Your task to perform on an android device: Open Google Chrome and open the bookmarks view Image 0: 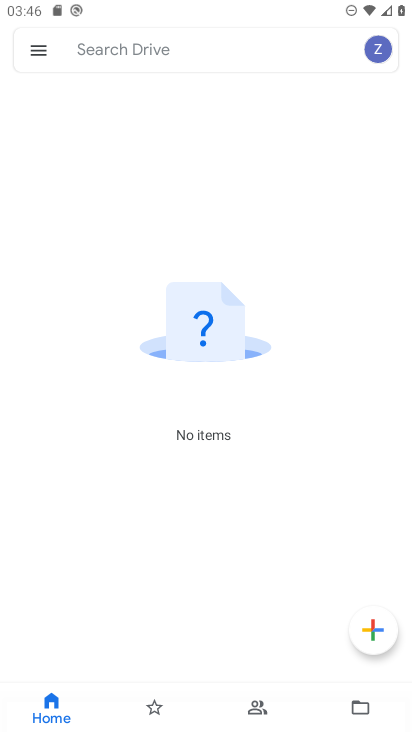
Step 0: press home button
Your task to perform on an android device: Open Google Chrome and open the bookmarks view Image 1: 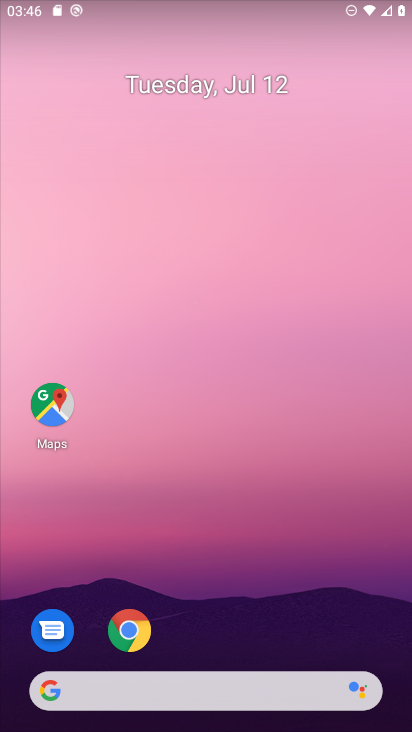
Step 1: click (128, 631)
Your task to perform on an android device: Open Google Chrome and open the bookmarks view Image 2: 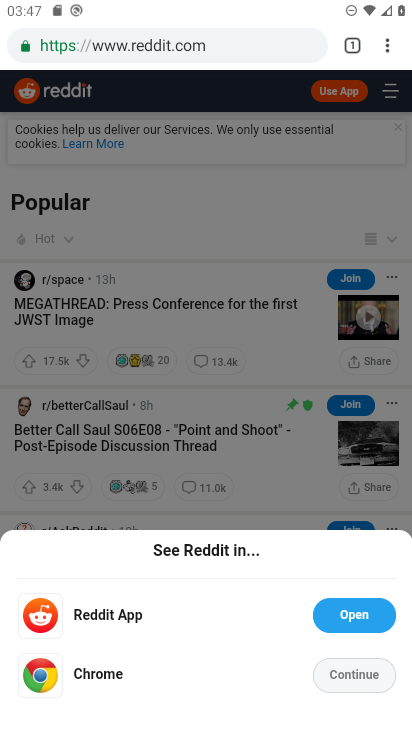
Step 2: click (391, 46)
Your task to perform on an android device: Open Google Chrome and open the bookmarks view Image 3: 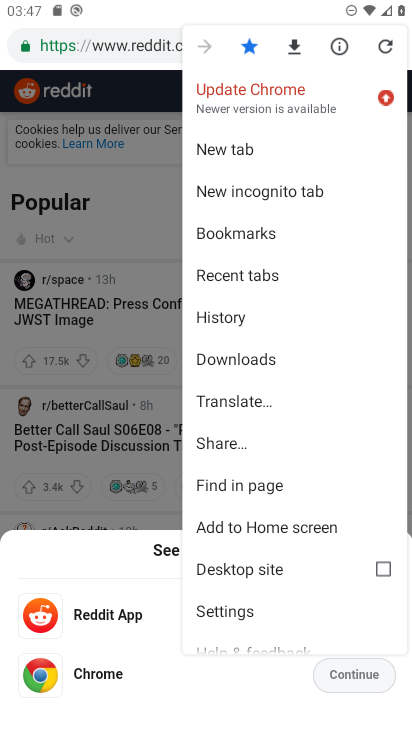
Step 3: click (219, 224)
Your task to perform on an android device: Open Google Chrome and open the bookmarks view Image 4: 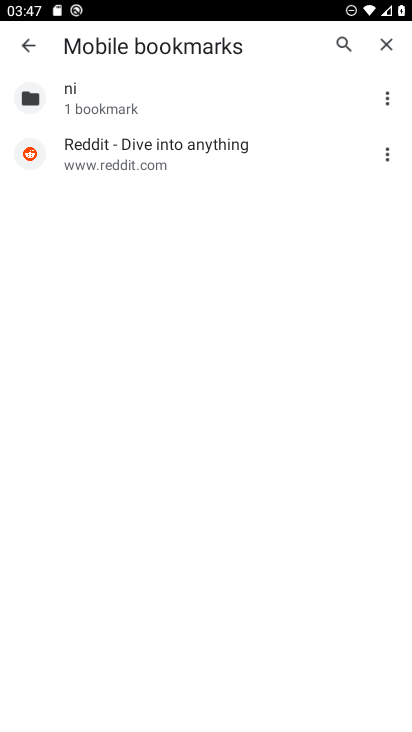
Step 4: task complete